Your task to perform on an android device: Open the calculator Image 0: 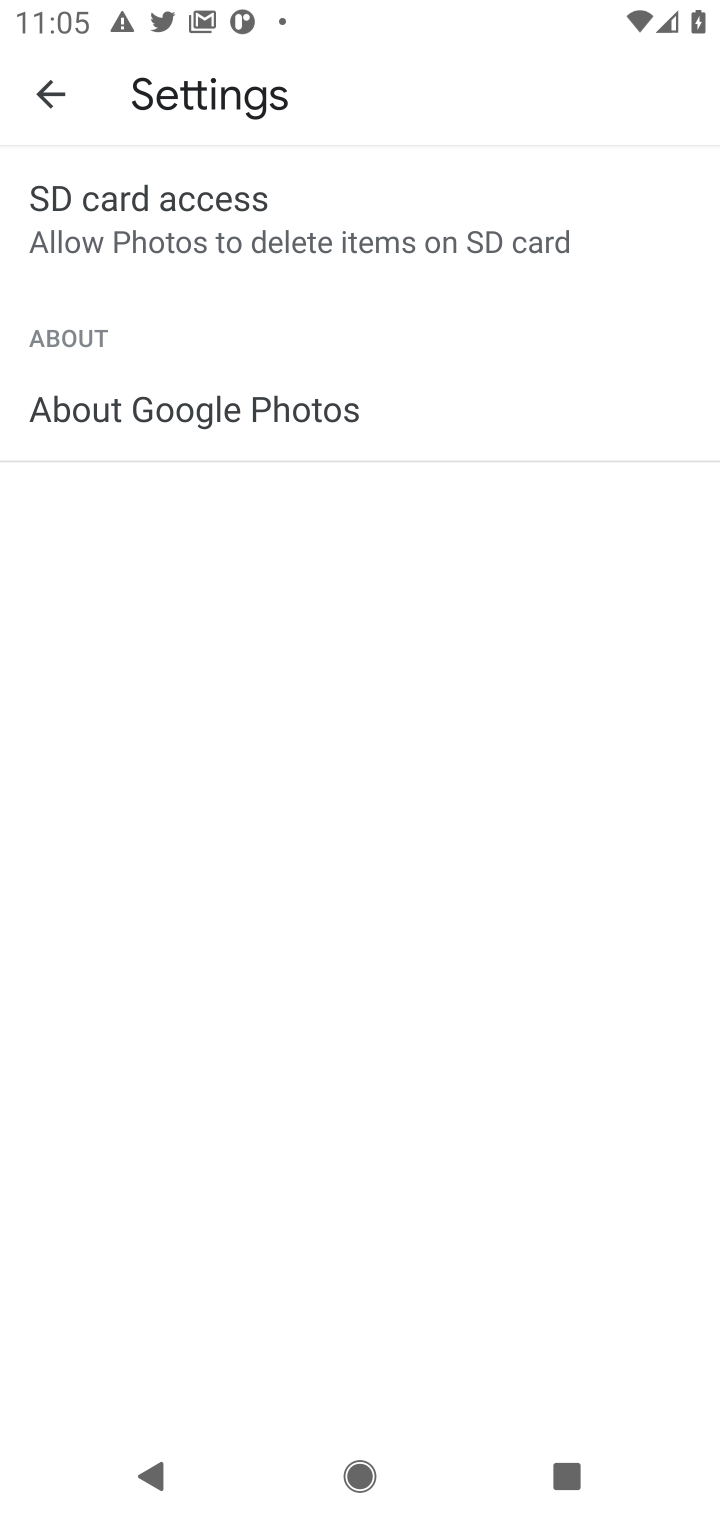
Step 0: press home button
Your task to perform on an android device: Open the calculator Image 1: 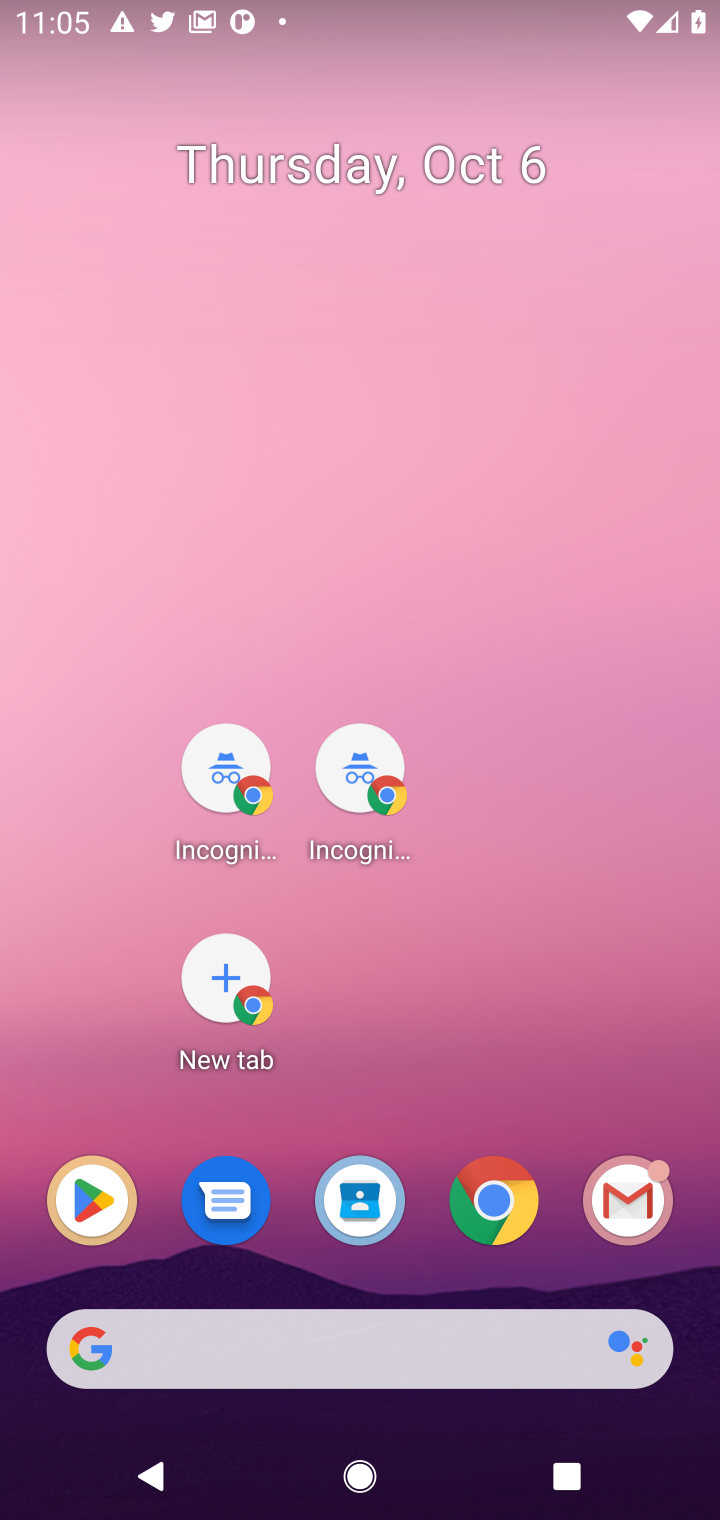
Step 1: click (498, 1213)
Your task to perform on an android device: Open the calculator Image 2: 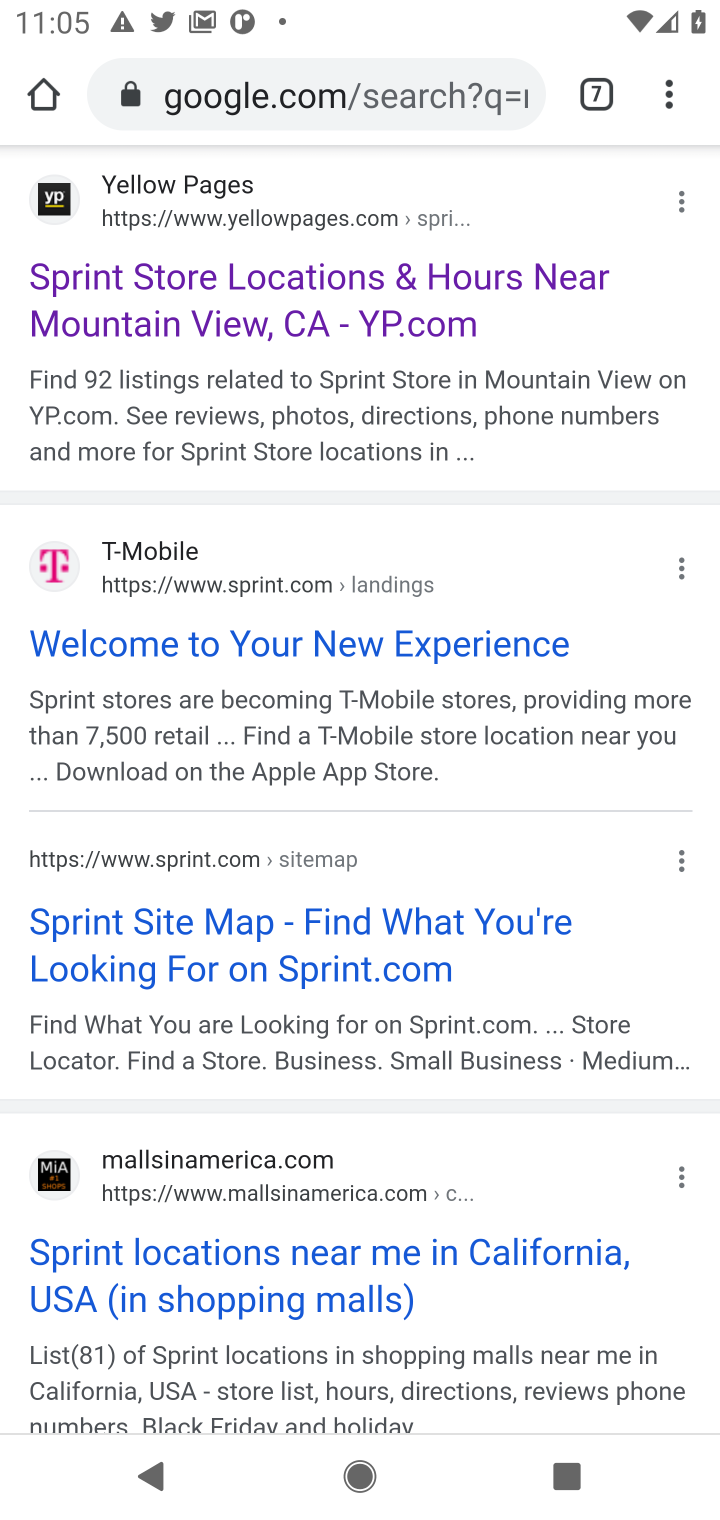
Step 2: click (365, 92)
Your task to perform on an android device: Open the calculator Image 3: 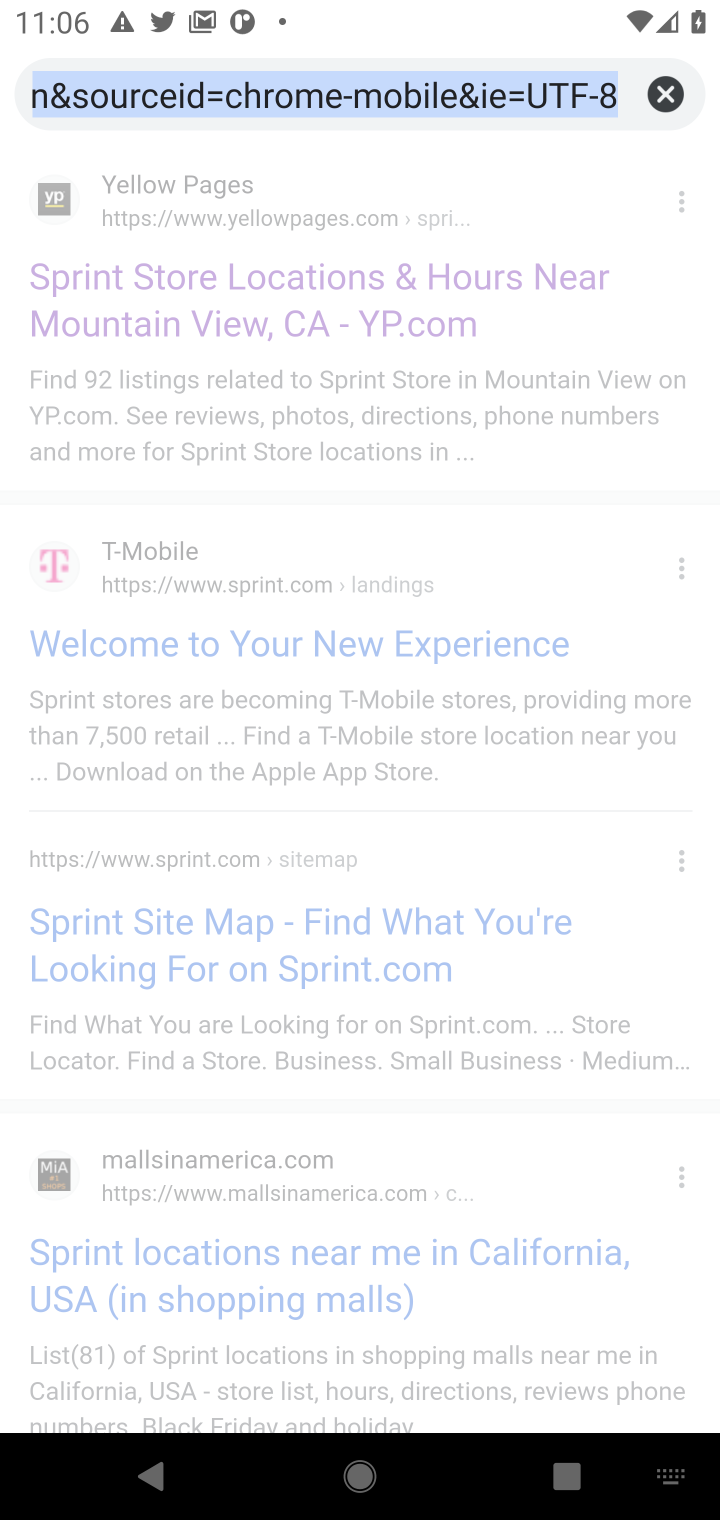
Step 3: click (661, 100)
Your task to perform on an android device: Open the calculator Image 4: 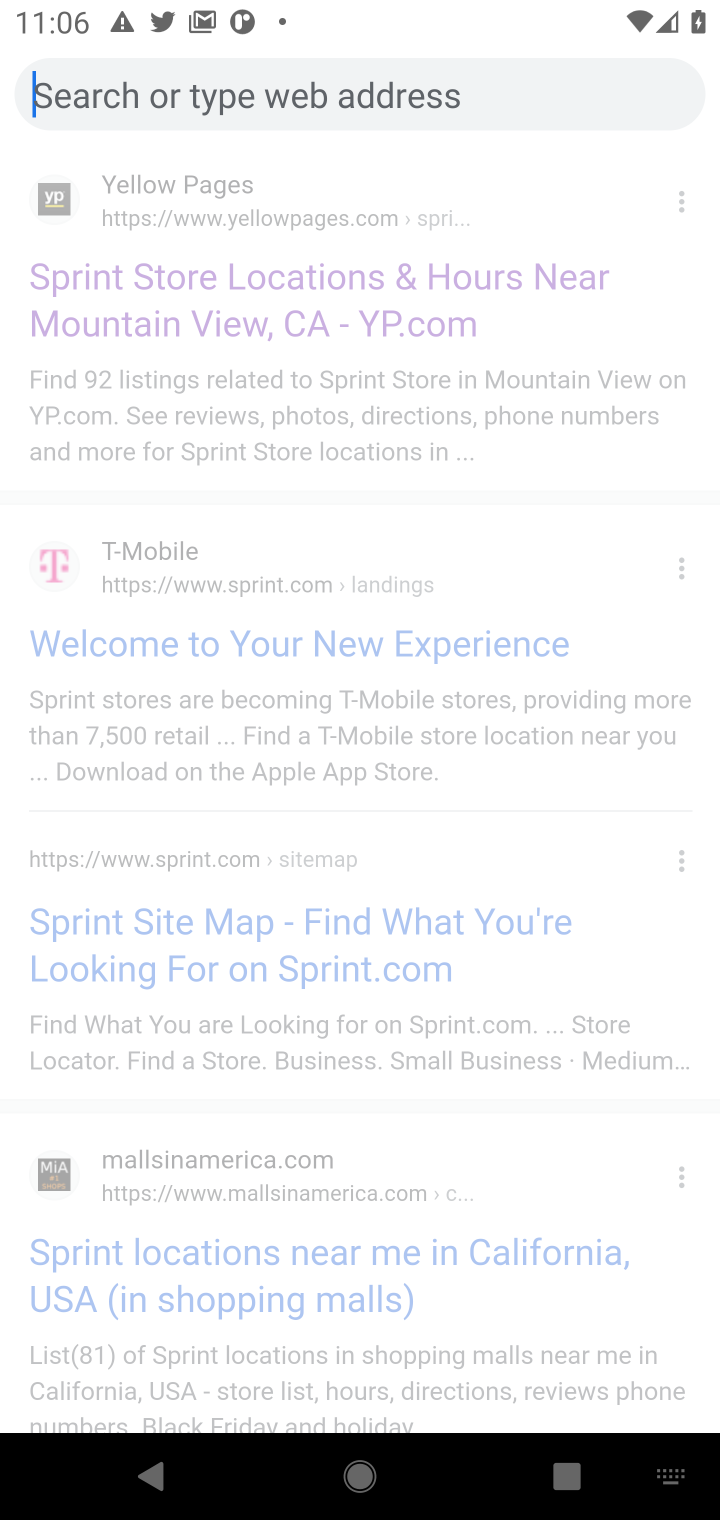
Step 4: type "open the calculator"
Your task to perform on an android device: Open the calculator Image 5: 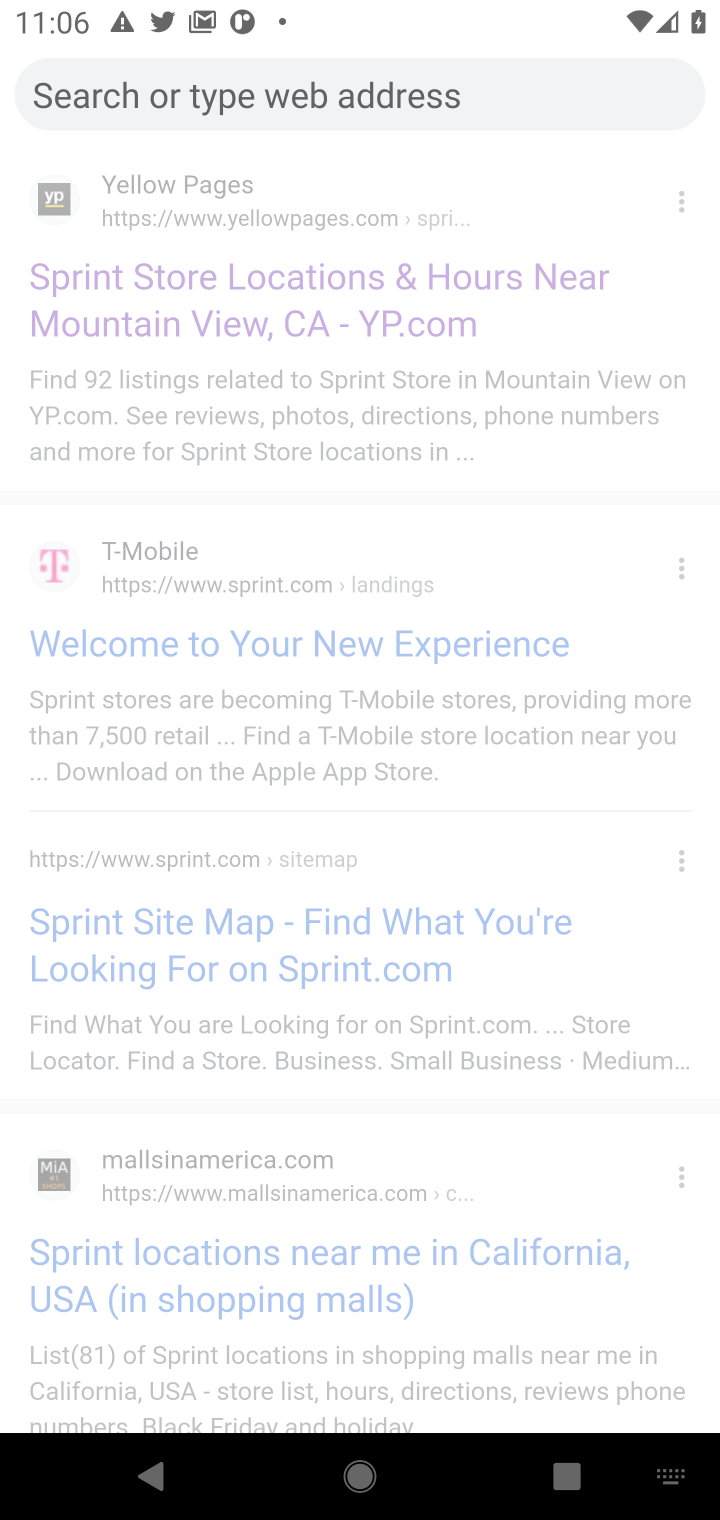
Step 5: click (425, 90)
Your task to perform on an android device: Open the calculator Image 6: 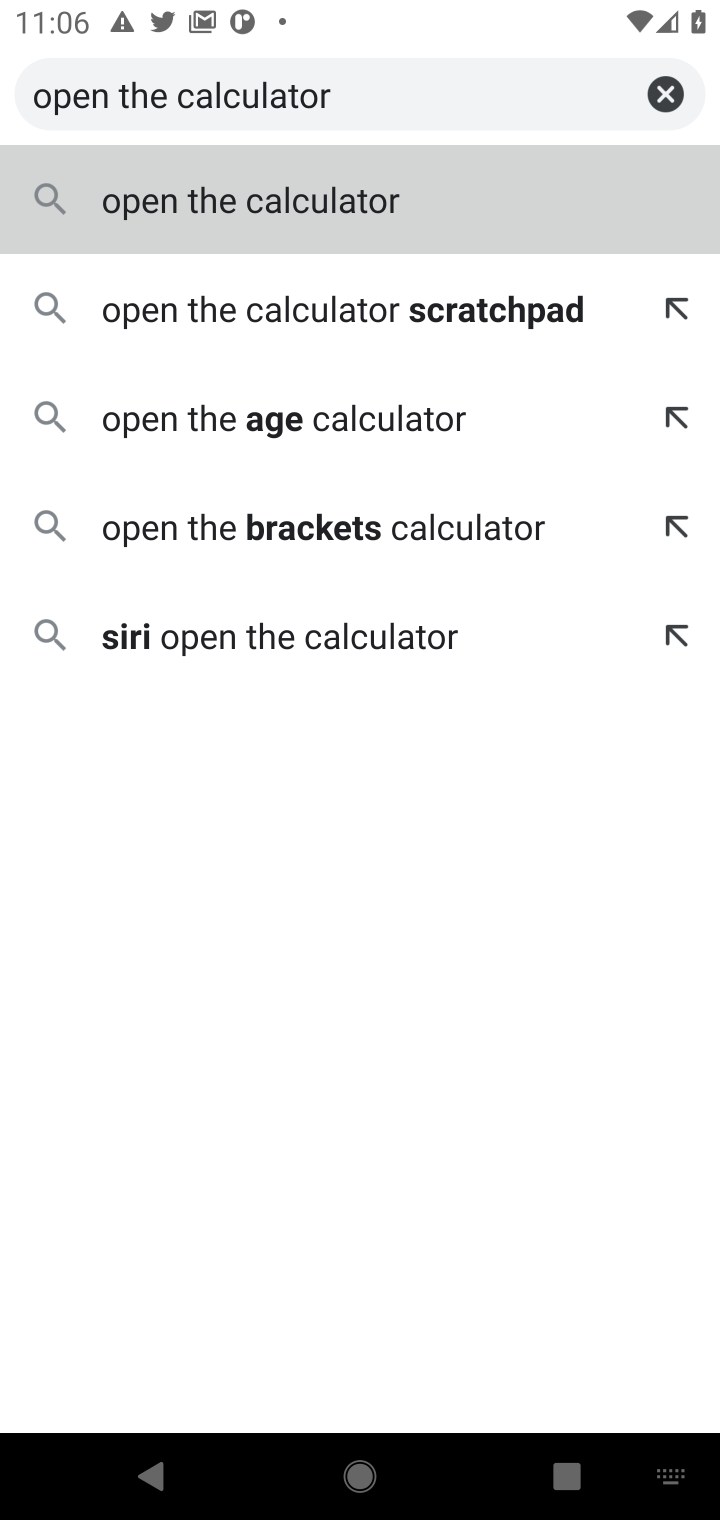
Step 6: type ""
Your task to perform on an android device: Open the calculator Image 7: 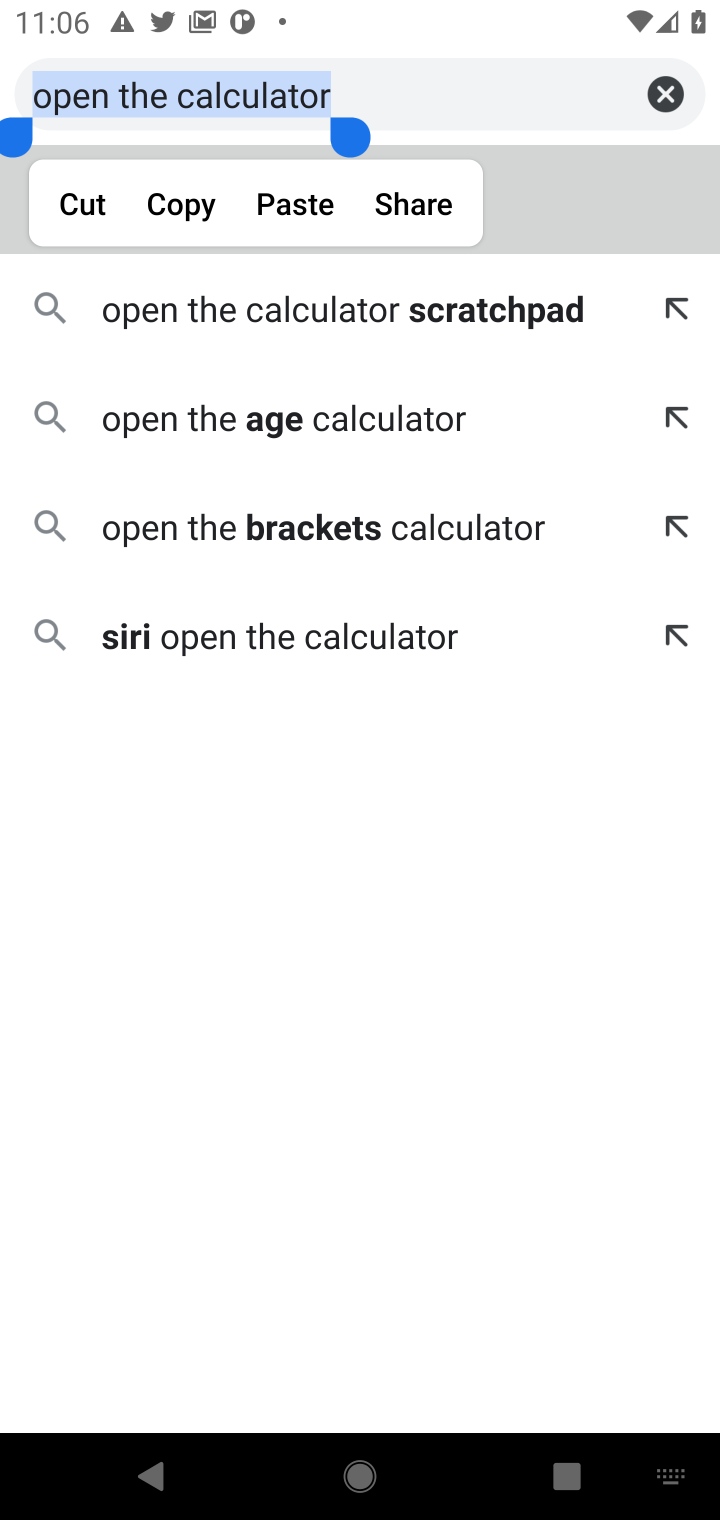
Step 7: click (335, 209)
Your task to perform on an android device: Open the calculator Image 8: 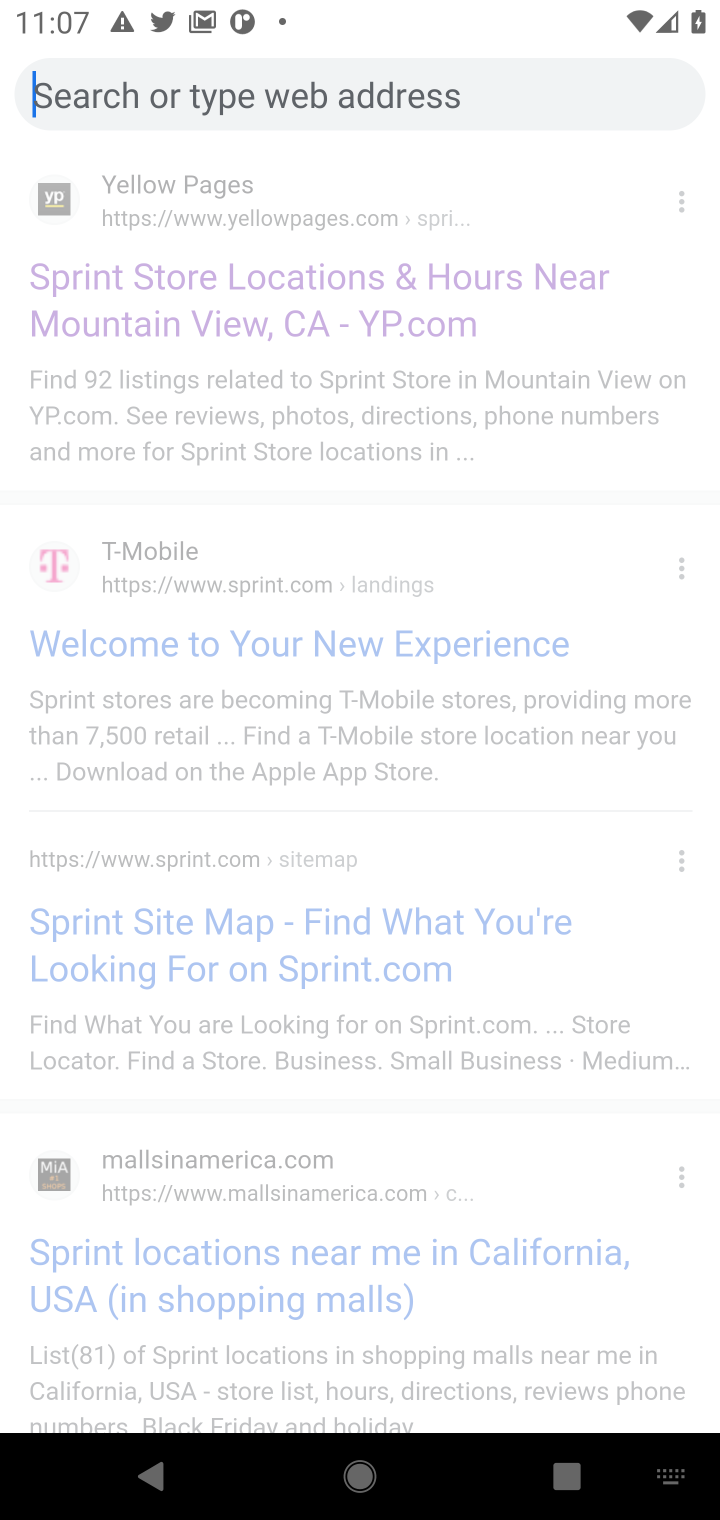
Step 8: type "calculator"
Your task to perform on an android device: Open the calculator Image 9: 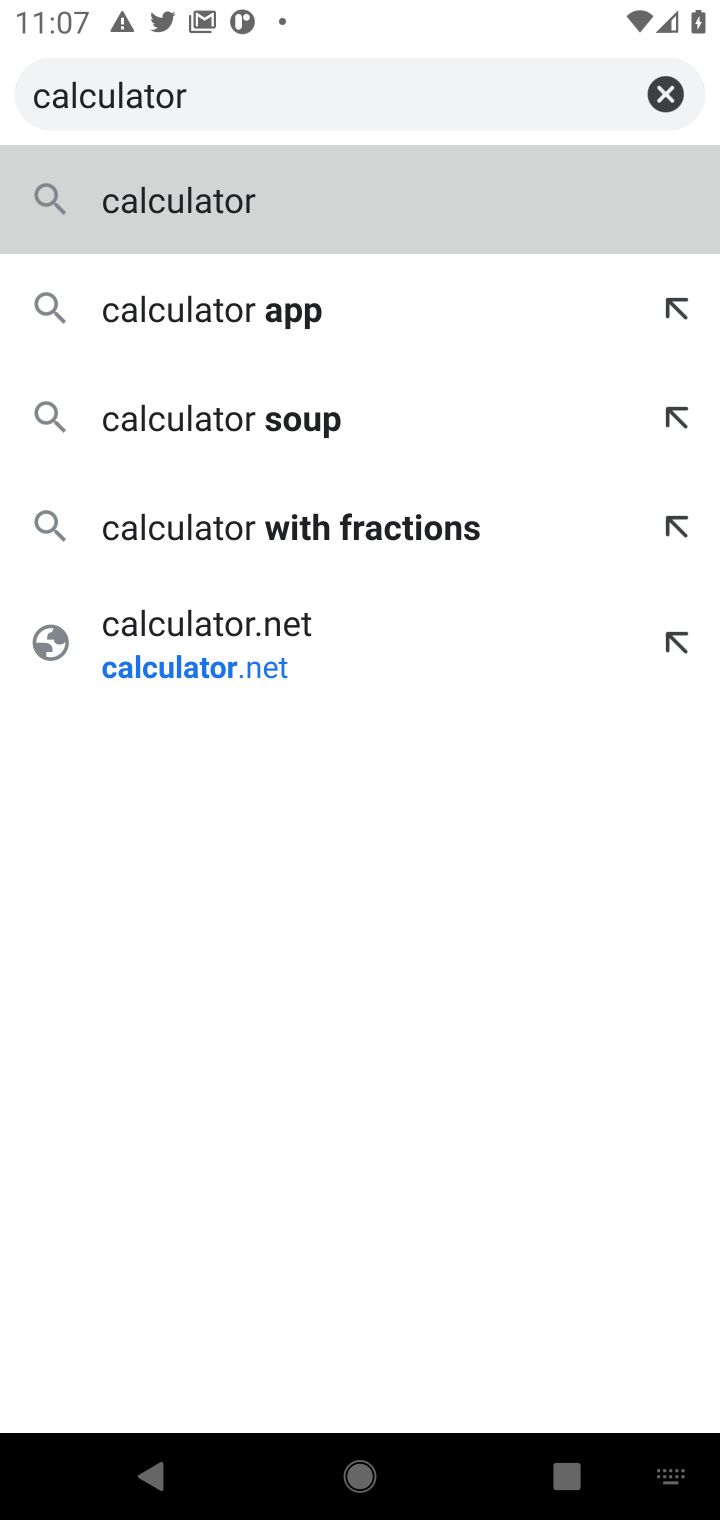
Step 9: click (186, 233)
Your task to perform on an android device: Open the calculator Image 10: 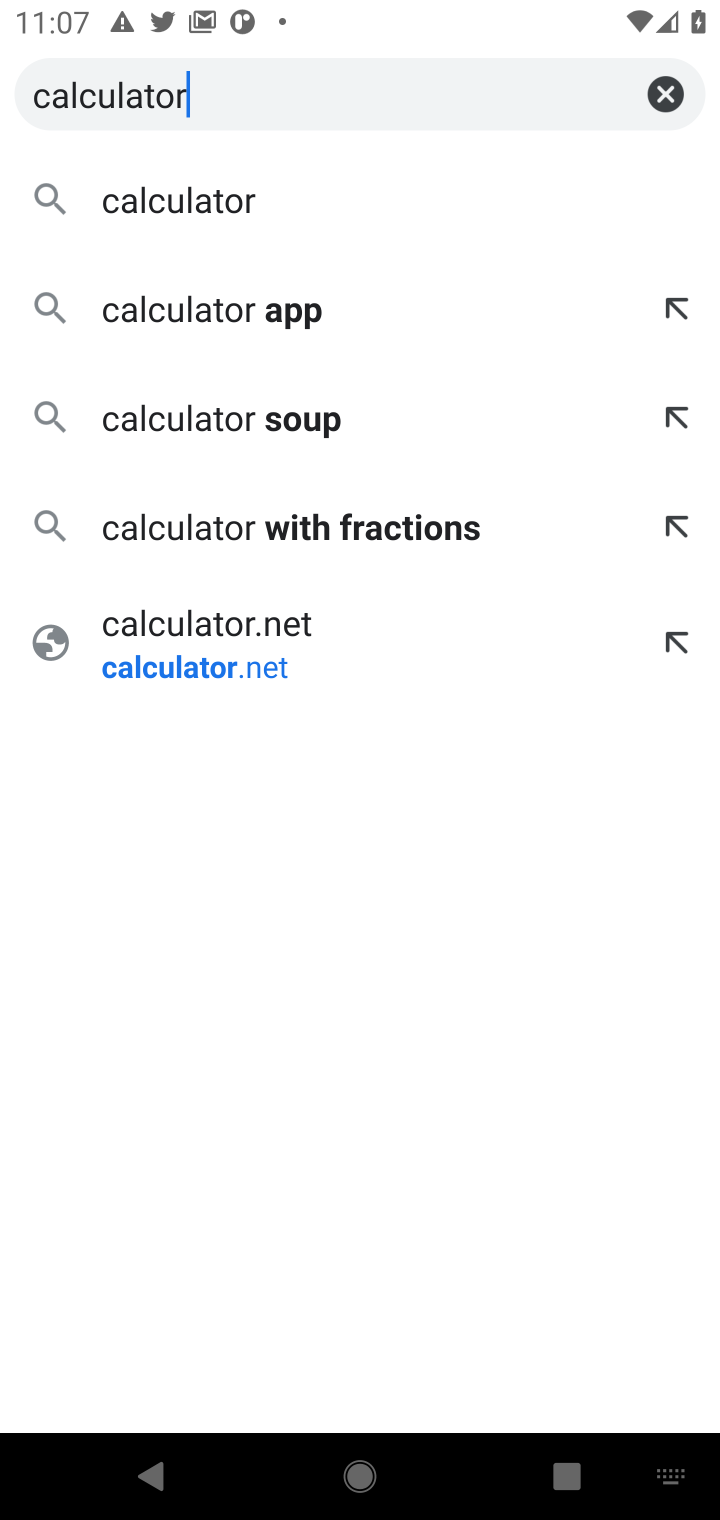
Step 10: click (198, 207)
Your task to perform on an android device: Open the calculator Image 11: 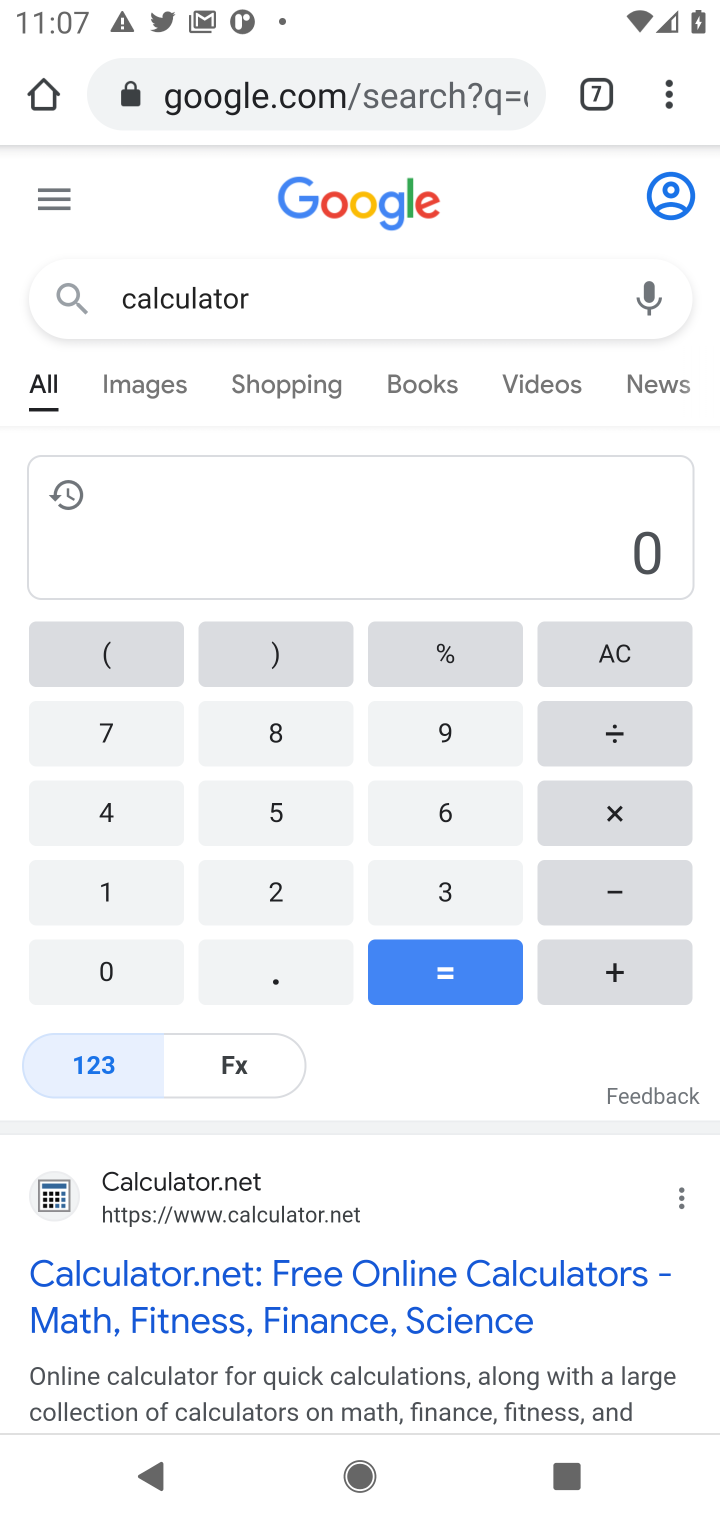
Step 11: task complete